Your task to perform on an android device: delete a single message in the gmail app Image 0: 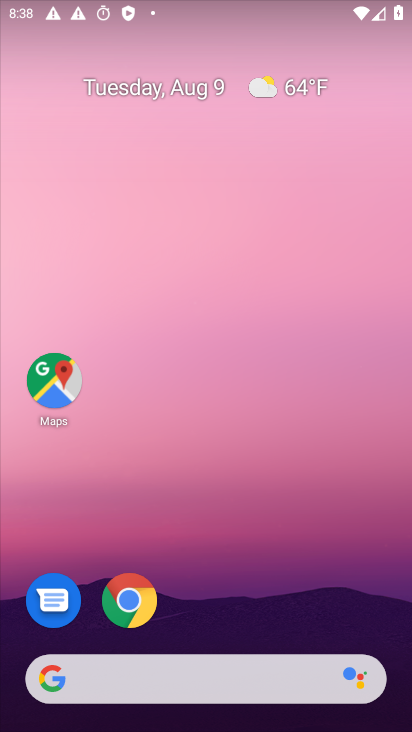
Step 0: press home button
Your task to perform on an android device: delete a single message in the gmail app Image 1: 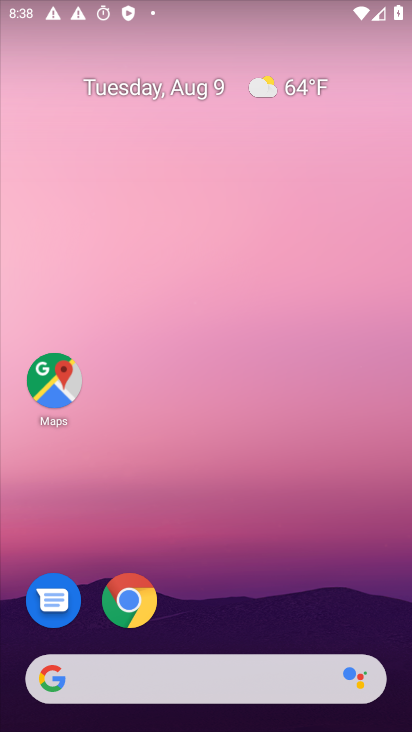
Step 1: drag from (233, 643) to (275, 108)
Your task to perform on an android device: delete a single message in the gmail app Image 2: 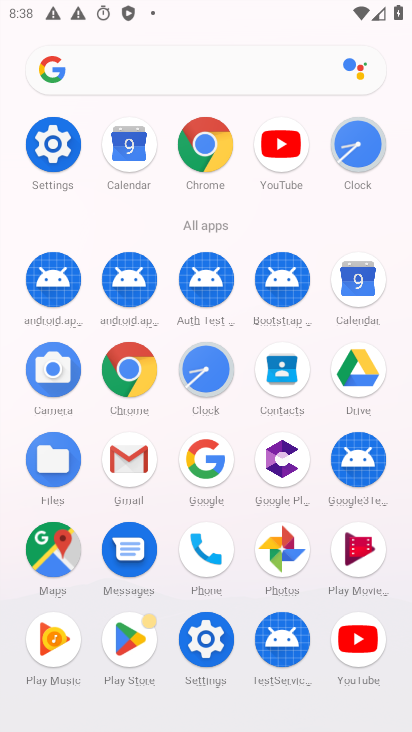
Step 2: click (125, 457)
Your task to perform on an android device: delete a single message in the gmail app Image 3: 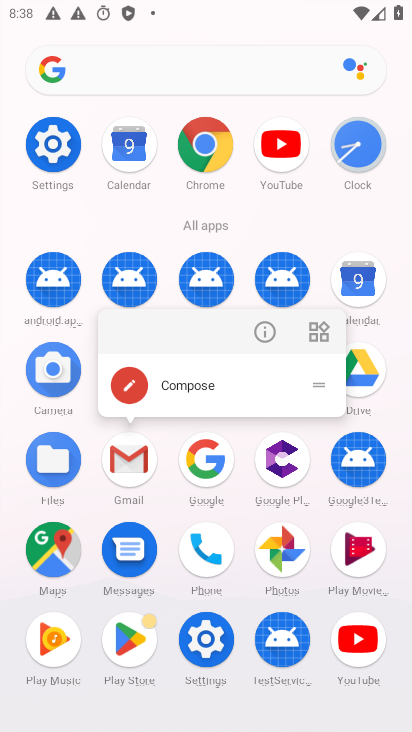
Step 3: click (125, 457)
Your task to perform on an android device: delete a single message in the gmail app Image 4: 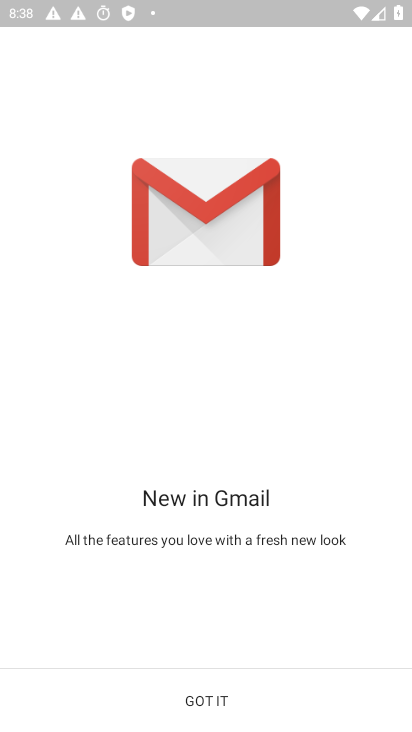
Step 4: click (207, 703)
Your task to perform on an android device: delete a single message in the gmail app Image 5: 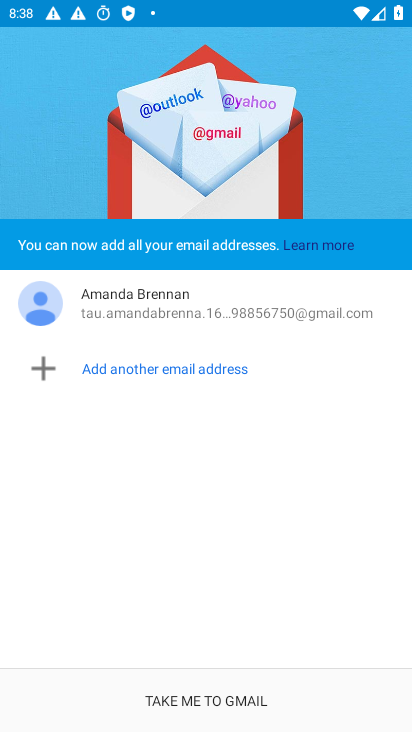
Step 5: click (207, 702)
Your task to perform on an android device: delete a single message in the gmail app Image 6: 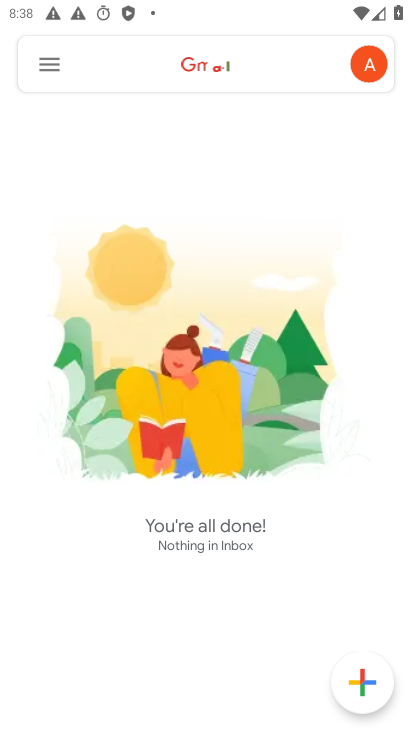
Step 6: click (46, 64)
Your task to perform on an android device: delete a single message in the gmail app Image 7: 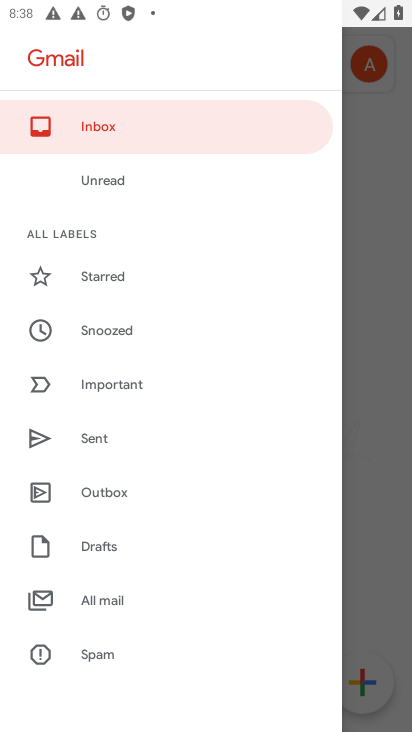
Step 7: click (102, 606)
Your task to perform on an android device: delete a single message in the gmail app Image 8: 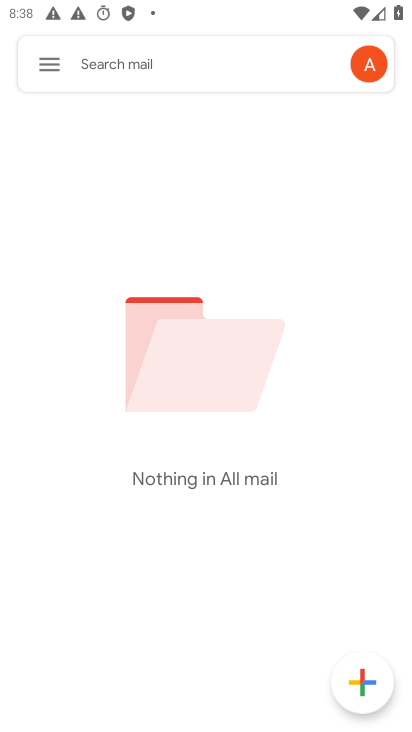
Step 8: task complete